Your task to perform on an android device: What's the weather going to be this weekend? Image 0: 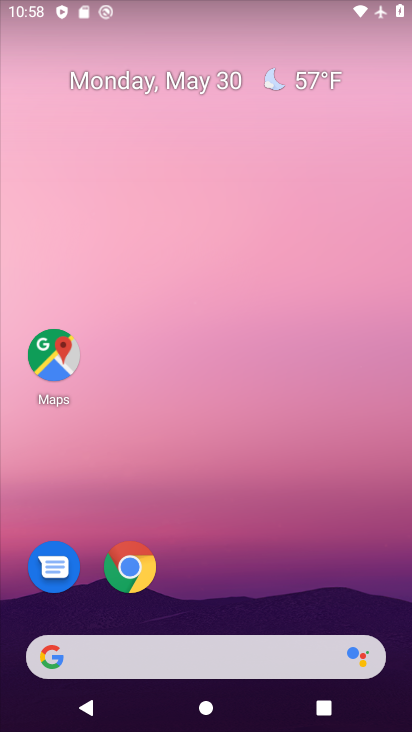
Step 0: drag from (208, 573) to (159, 245)
Your task to perform on an android device: What's the weather going to be this weekend? Image 1: 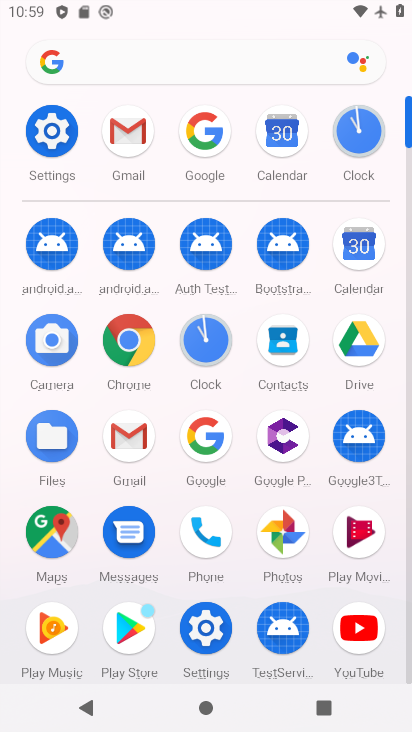
Step 1: click (195, 129)
Your task to perform on an android device: What's the weather going to be this weekend? Image 2: 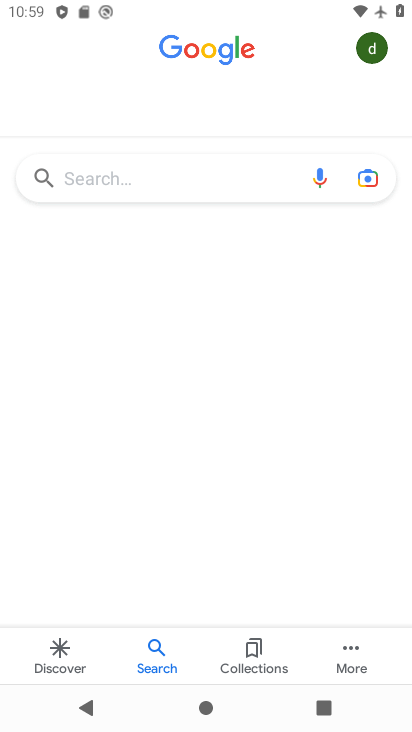
Step 2: click (130, 187)
Your task to perform on an android device: What's the weather going to be this weekend? Image 3: 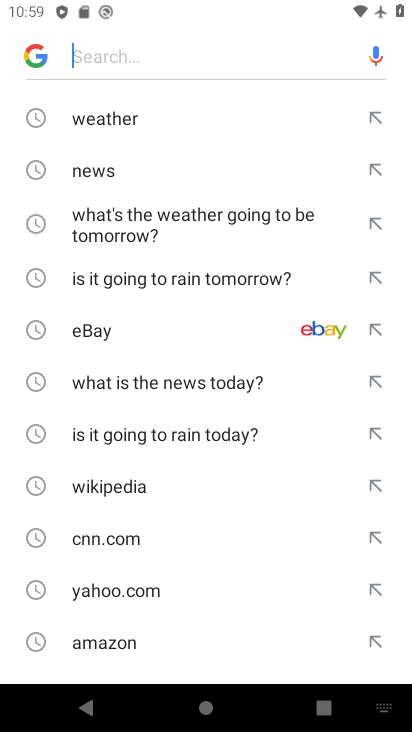
Step 3: click (124, 115)
Your task to perform on an android device: What's the weather going to be this weekend? Image 4: 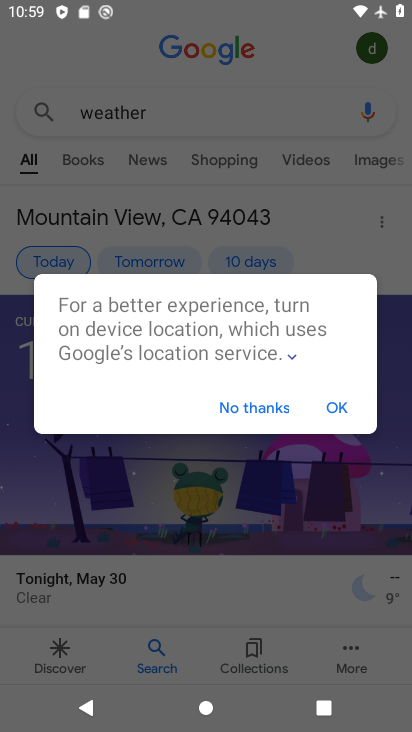
Step 4: click (340, 400)
Your task to perform on an android device: What's the weather going to be this weekend? Image 5: 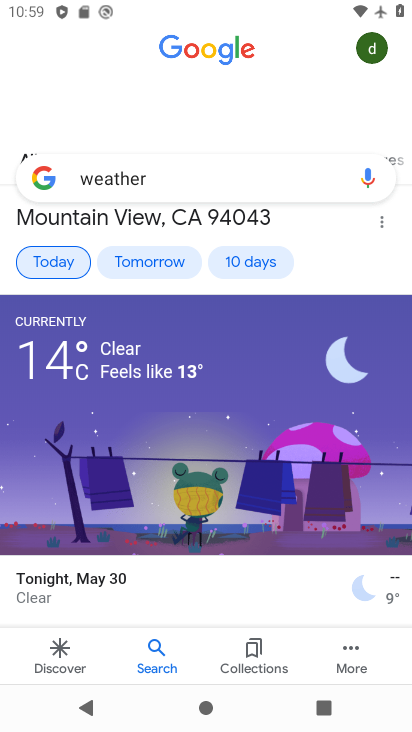
Step 5: click (236, 263)
Your task to perform on an android device: What's the weather going to be this weekend? Image 6: 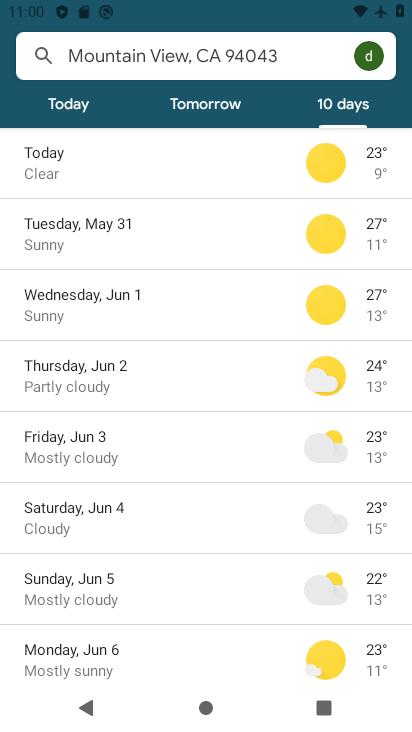
Step 6: task complete